Your task to perform on an android device: Go to ESPN.com Image 0: 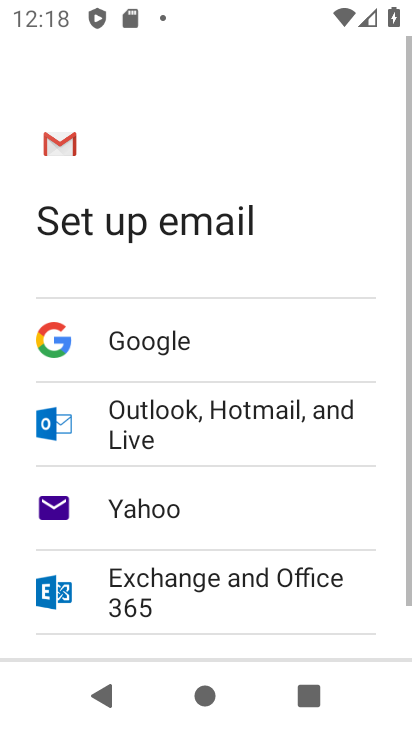
Step 0: press back button
Your task to perform on an android device: Go to ESPN.com Image 1: 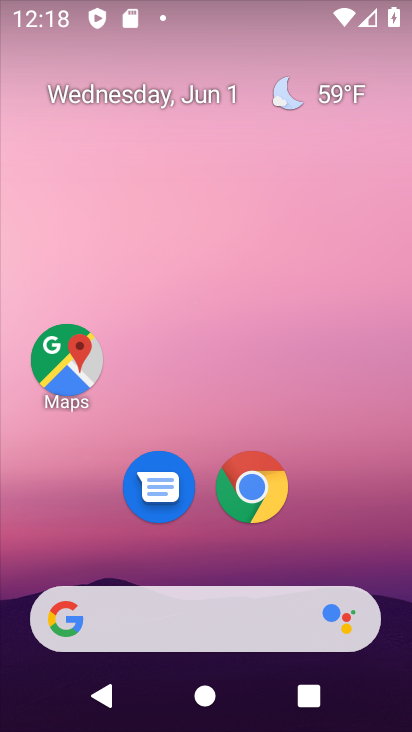
Step 1: click (269, 487)
Your task to perform on an android device: Go to ESPN.com Image 2: 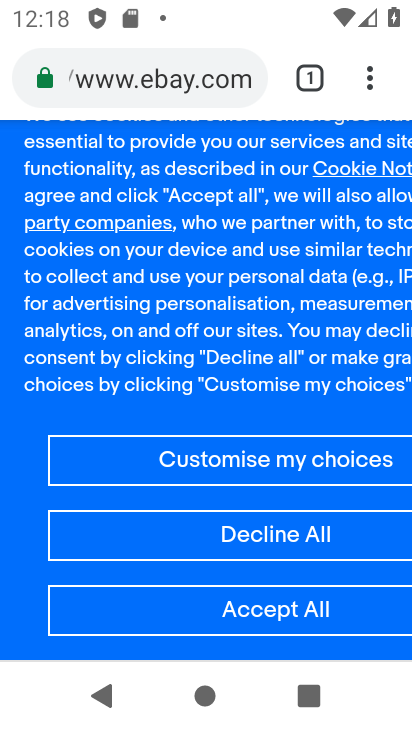
Step 2: click (303, 90)
Your task to perform on an android device: Go to ESPN.com Image 3: 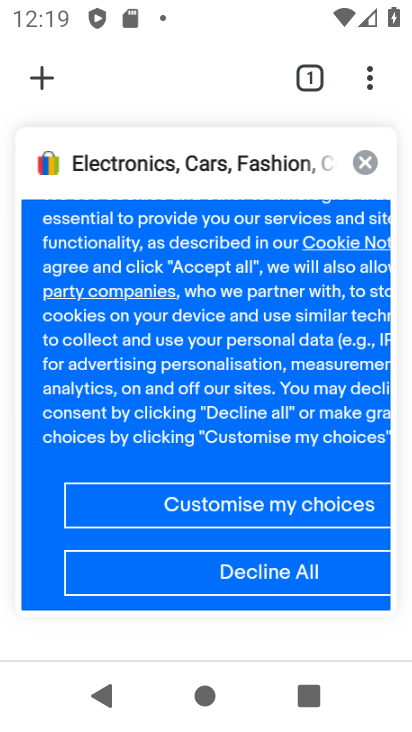
Step 3: click (305, 81)
Your task to perform on an android device: Go to ESPN.com Image 4: 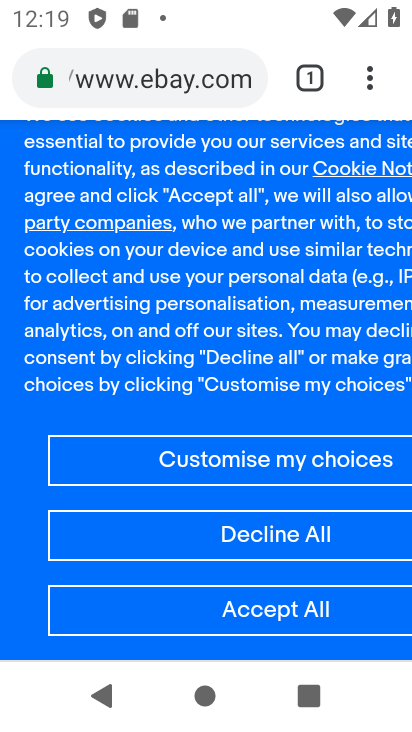
Step 4: click (300, 75)
Your task to perform on an android device: Go to ESPN.com Image 5: 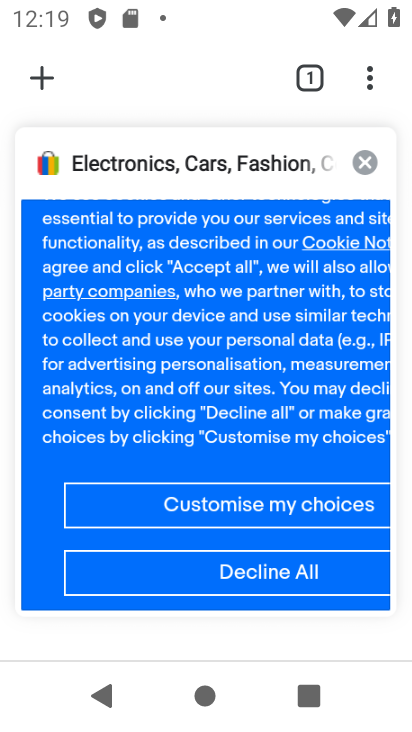
Step 5: click (37, 73)
Your task to perform on an android device: Go to ESPN.com Image 6: 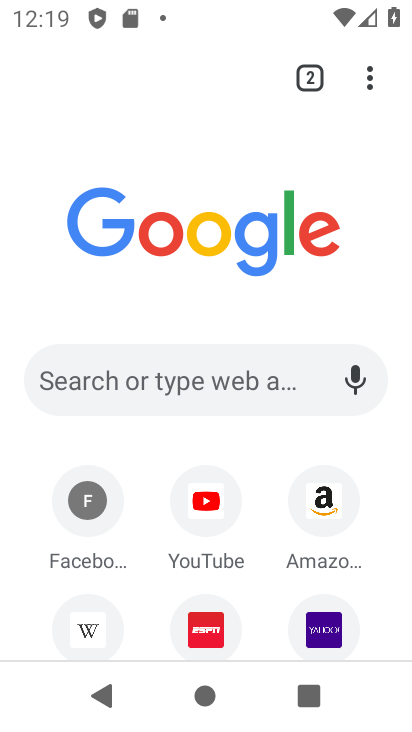
Step 6: click (210, 632)
Your task to perform on an android device: Go to ESPN.com Image 7: 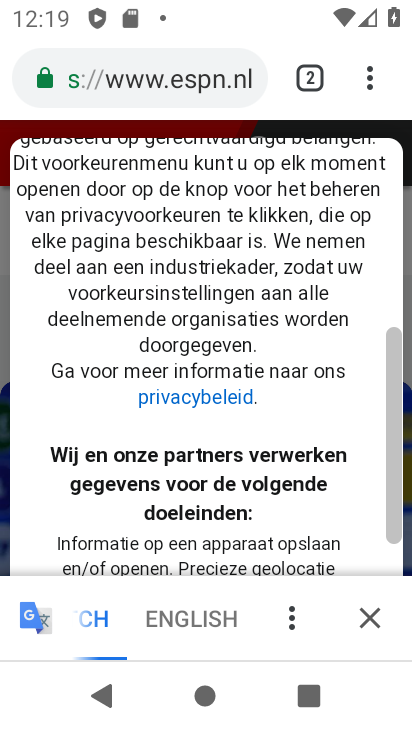
Step 7: task complete